Your task to perform on an android device: Go to accessibility settings Image 0: 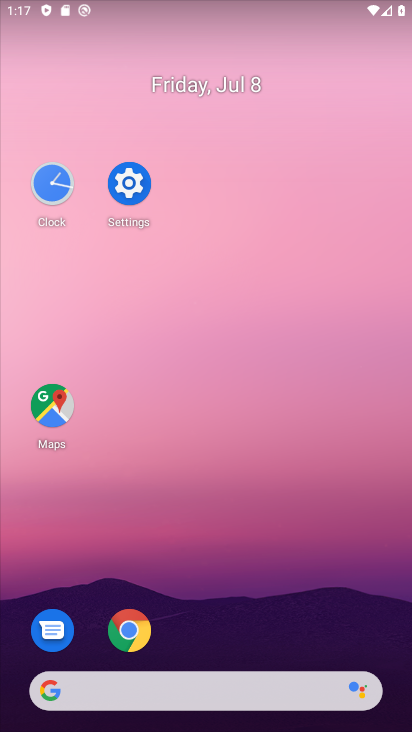
Step 0: click (141, 188)
Your task to perform on an android device: Go to accessibility settings Image 1: 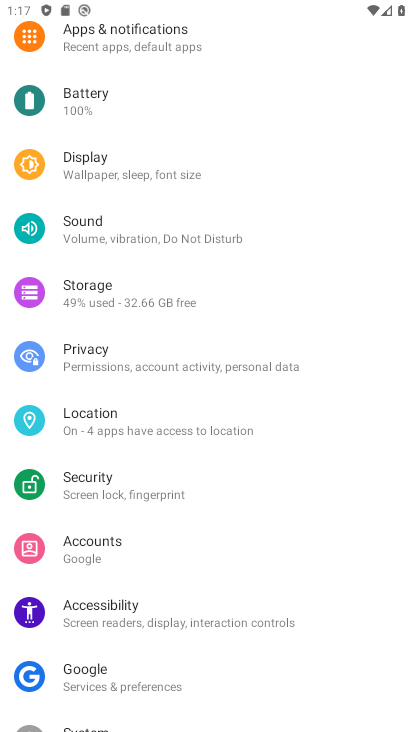
Step 1: click (143, 620)
Your task to perform on an android device: Go to accessibility settings Image 2: 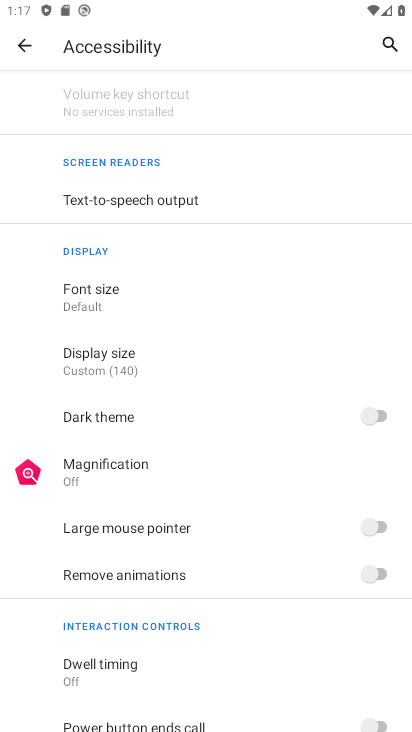
Step 2: task complete